Your task to perform on an android device: Open internet settings Image 0: 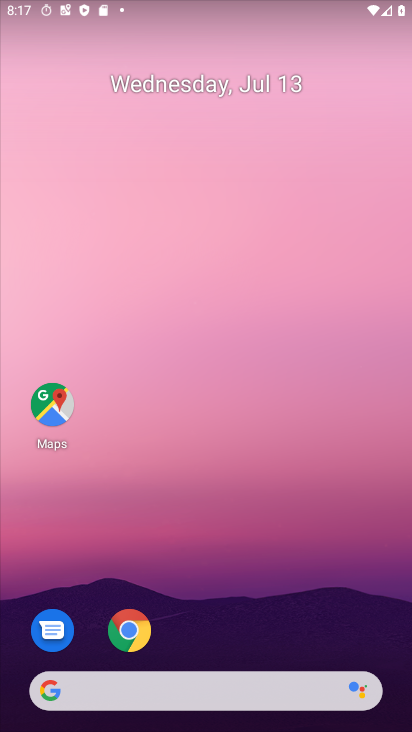
Step 0: drag from (351, 634) to (355, 85)
Your task to perform on an android device: Open internet settings Image 1: 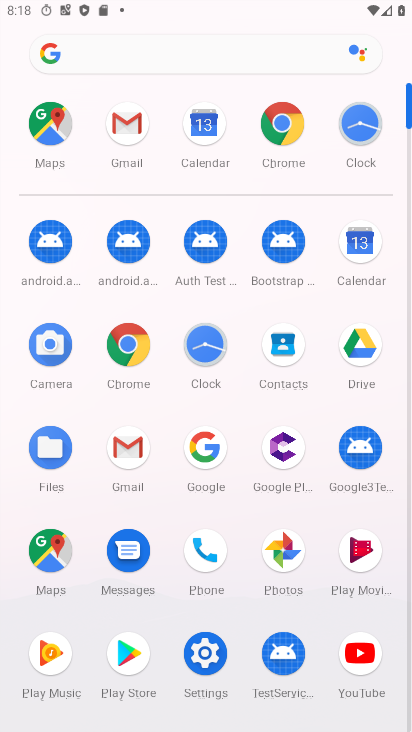
Step 1: click (202, 647)
Your task to perform on an android device: Open internet settings Image 2: 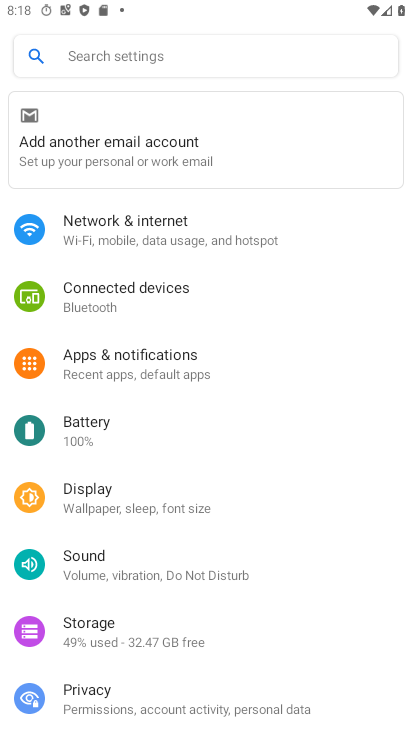
Step 2: drag from (336, 499) to (332, 369)
Your task to perform on an android device: Open internet settings Image 3: 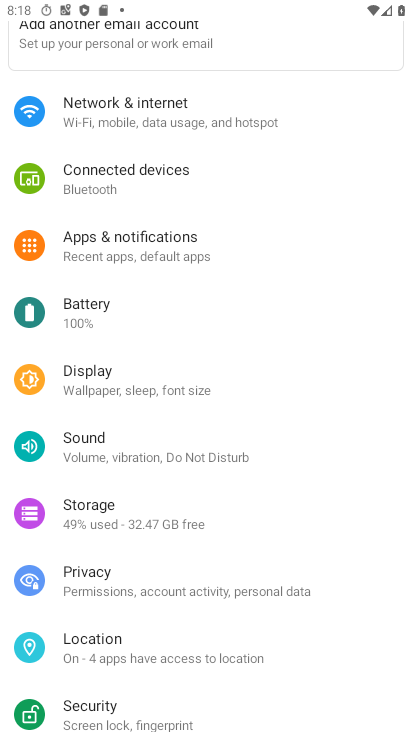
Step 3: drag from (331, 505) to (335, 288)
Your task to perform on an android device: Open internet settings Image 4: 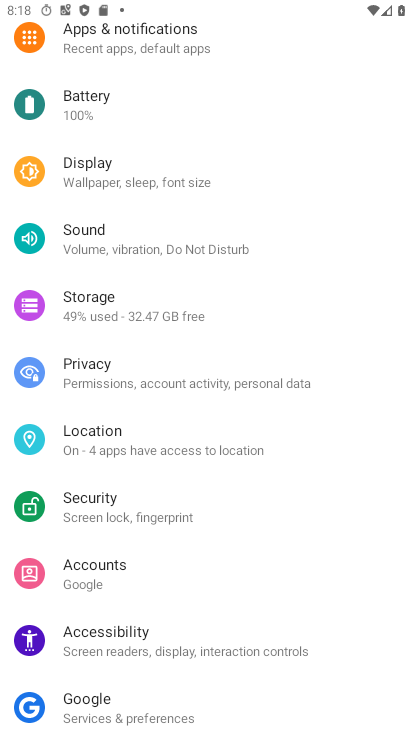
Step 4: drag from (322, 518) to (325, 406)
Your task to perform on an android device: Open internet settings Image 5: 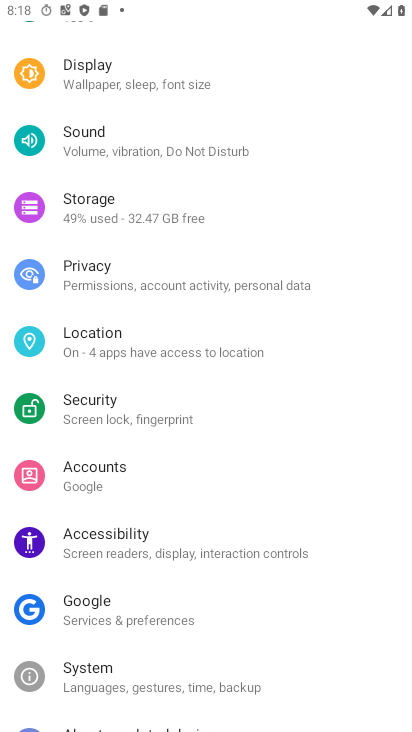
Step 5: drag from (344, 588) to (341, 459)
Your task to perform on an android device: Open internet settings Image 6: 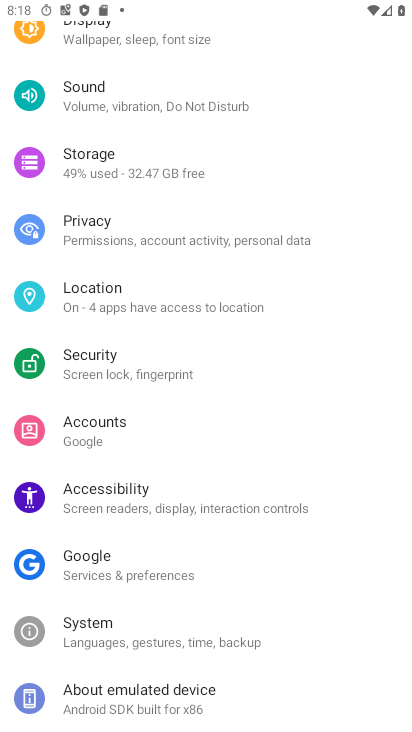
Step 6: drag from (339, 343) to (321, 428)
Your task to perform on an android device: Open internet settings Image 7: 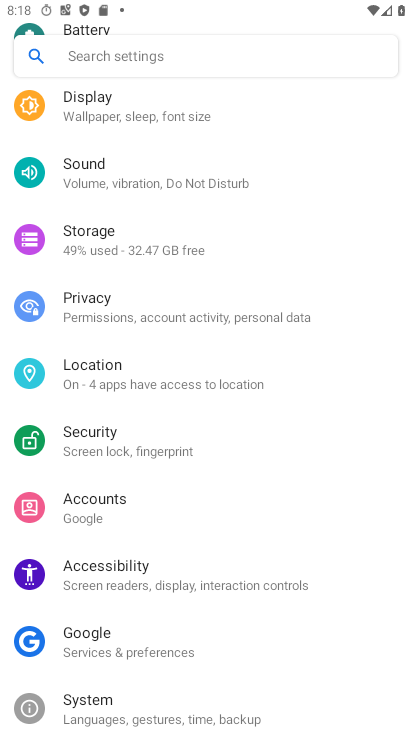
Step 7: drag from (335, 286) to (333, 400)
Your task to perform on an android device: Open internet settings Image 8: 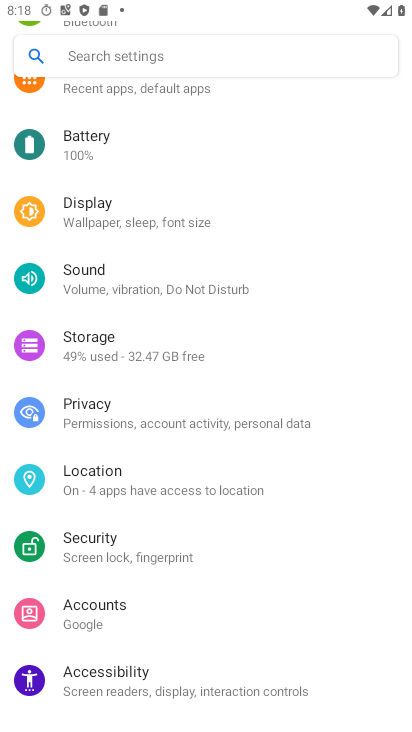
Step 8: drag from (332, 257) to (354, 423)
Your task to perform on an android device: Open internet settings Image 9: 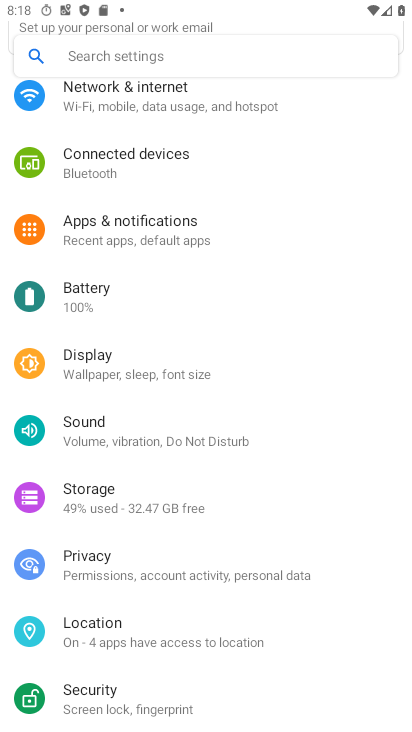
Step 9: drag from (358, 231) to (378, 440)
Your task to perform on an android device: Open internet settings Image 10: 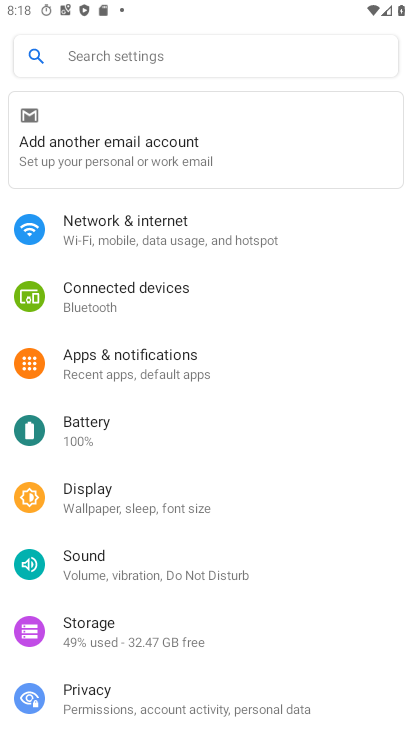
Step 10: click (249, 231)
Your task to perform on an android device: Open internet settings Image 11: 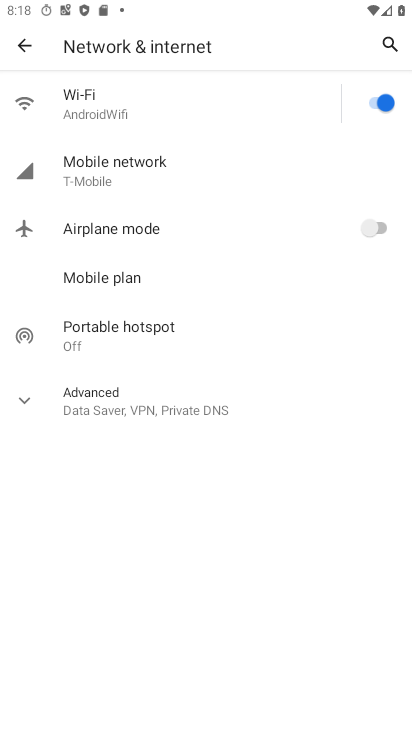
Step 11: task complete